Your task to perform on an android device: manage bookmarks in the chrome app Image 0: 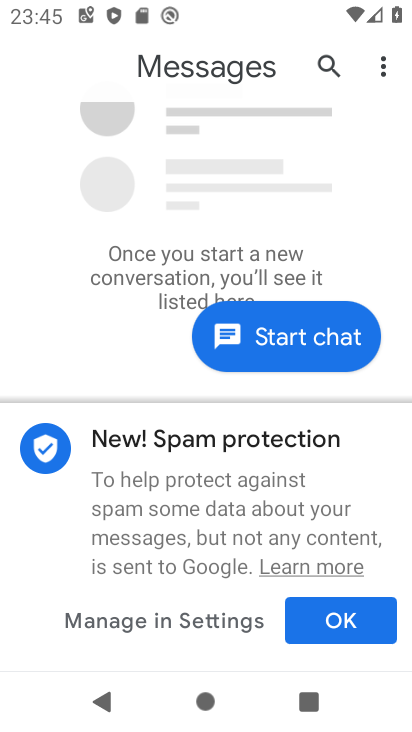
Step 0: press home button
Your task to perform on an android device: manage bookmarks in the chrome app Image 1: 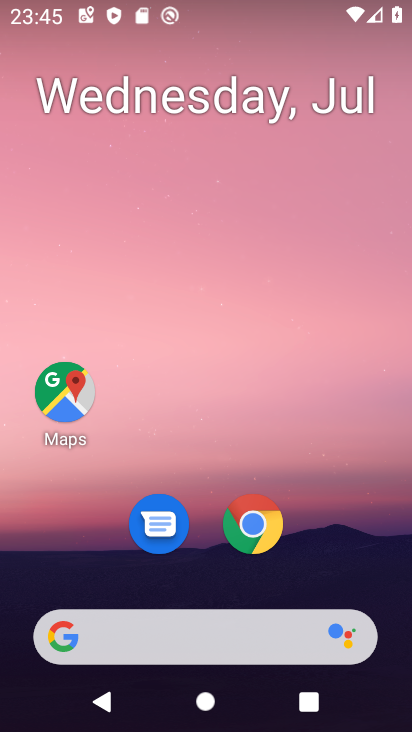
Step 1: click (255, 536)
Your task to perform on an android device: manage bookmarks in the chrome app Image 2: 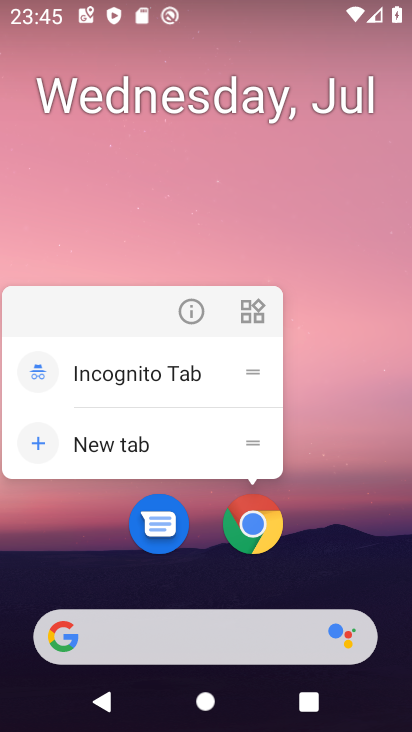
Step 2: click (251, 524)
Your task to perform on an android device: manage bookmarks in the chrome app Image 3: 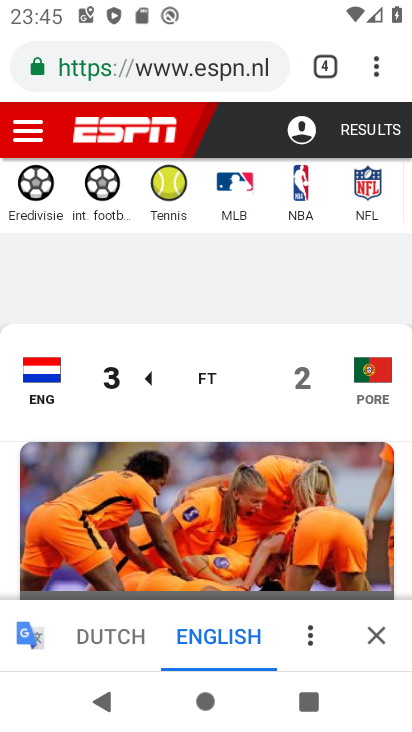
Step 3: task complete